Your task to perform on an android device: turn off airplane mode Image 0: 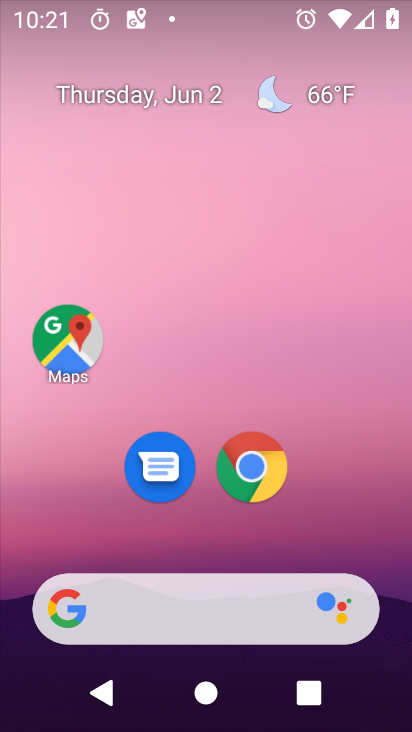
Step 0: drag from (368, 11) to (364, 538)
Your task to perform on an android device: turn off airplane mode Image 1: 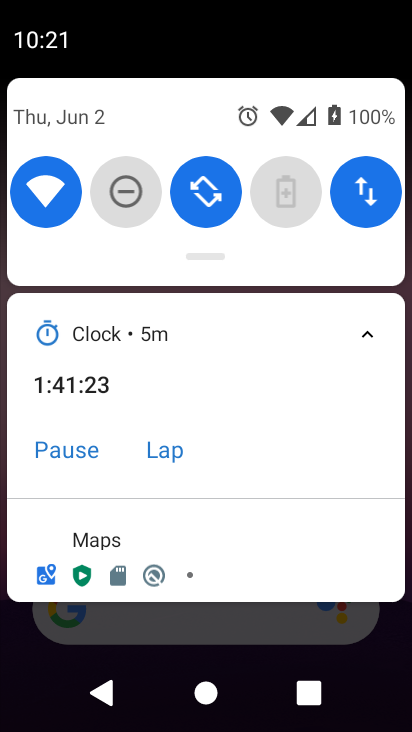
Step 1: drag from (184, 252) to (262, 558)
Your task to perform on an android device: turn off airplane mode Image 2: 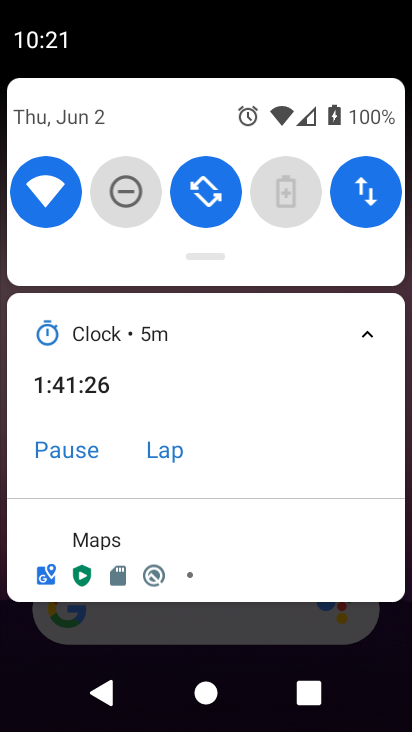
Step 2: drag from (223, 244) to (243, 467)
Your task to perform on an android device: turn off airplane mode Image 3: 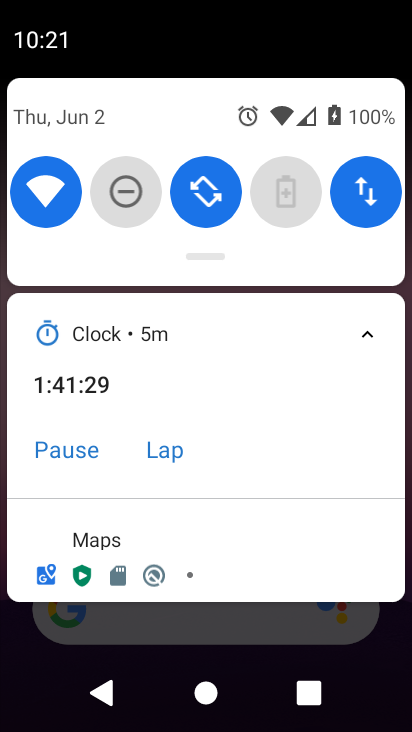
Step 3: drag from (205, 133) to (270, 444)
Your task to perform on an android device: turn off airplane mode Image 4: 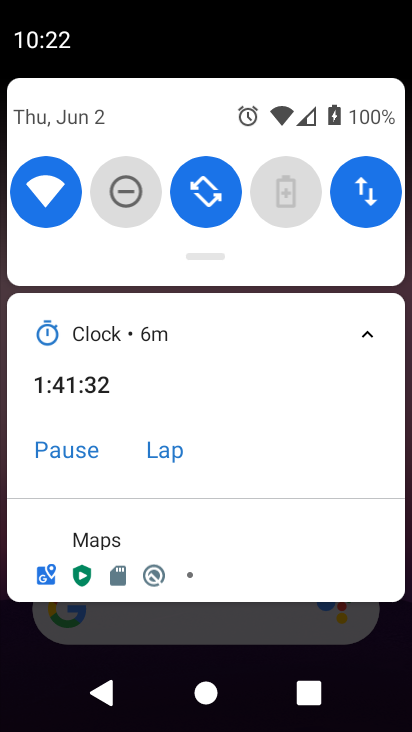
Step 4: press home button
Your task to perform on an android device: turn off airplane mode Image 5: 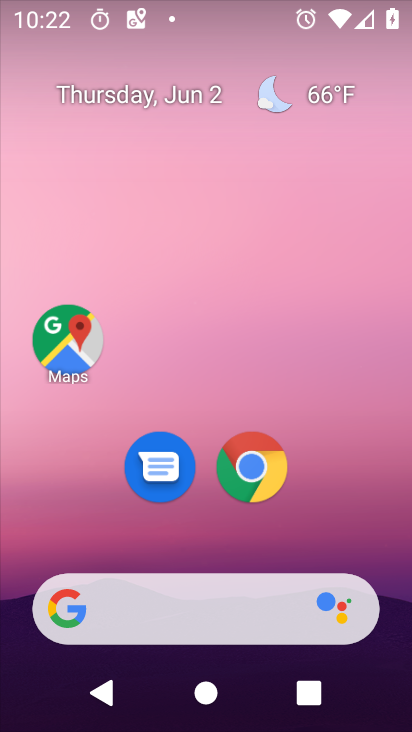
Step 5: drag from (91, 439) to (264, 215)
Your task to perform on an android device: turn off airplane mode Image 6: 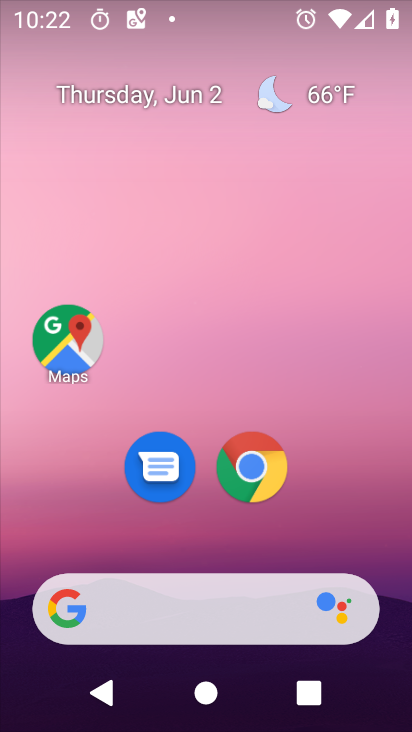
Step 6: drag from (85, 489) to (283, 53)
Your task to perform on an android device: turn off airplane mode Image 7: 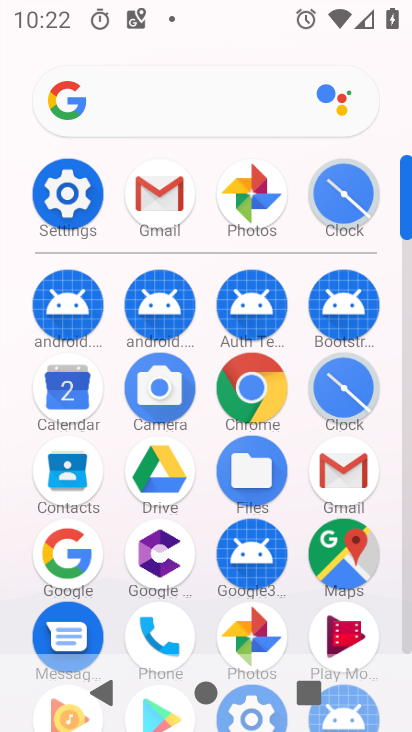
Step 7: click (77, 199)
Your task to perform on an android device: turn off airplane mode Image 8: 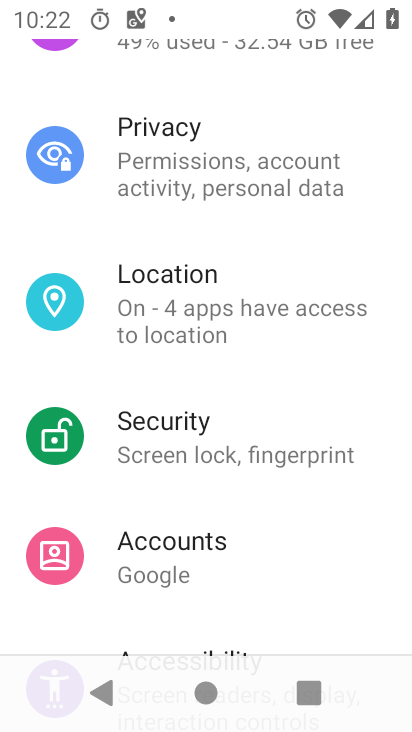
Step 8: drag from (259, 165) to (268, 667)
Your task to perform on an android device: turn off airplane mode Image 9: 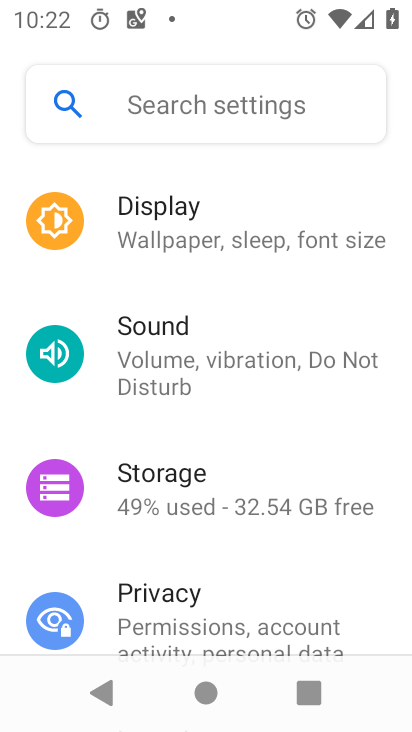
Step 9: drag from (246, 213) to (215, 628)
Your task to perform on an android device: turn off airplane mode Image 10: 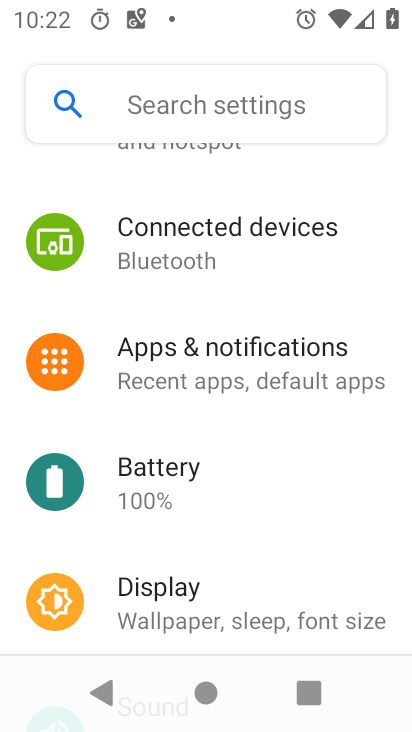
Step 10: drag from (279, 185) to (259, 673)
Your task to perform on an android device: turn off airplane mode Image 11: 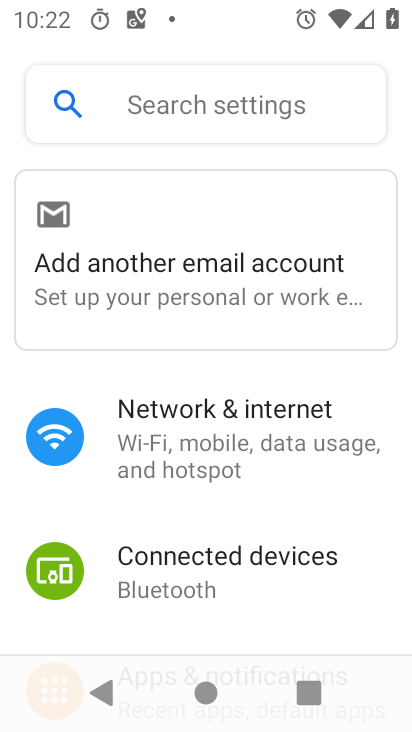
Step 11: click (275, 439)
Your task to perform on an android device: turn off airplane mode Image 12: 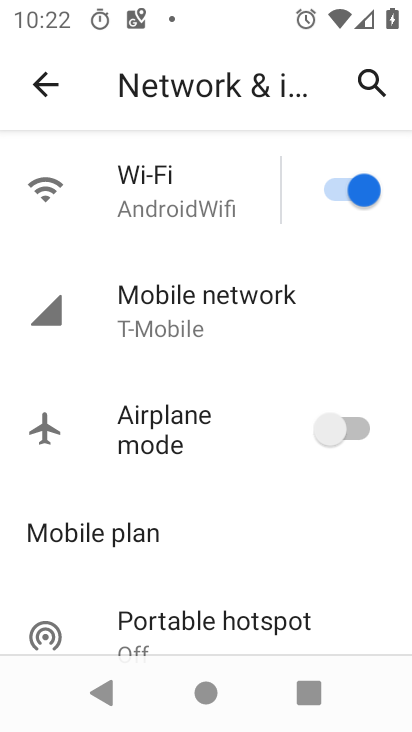
Step 12: task complete